Your task to perform on an android device: Set the phone to "Do not disturb". Image 0: 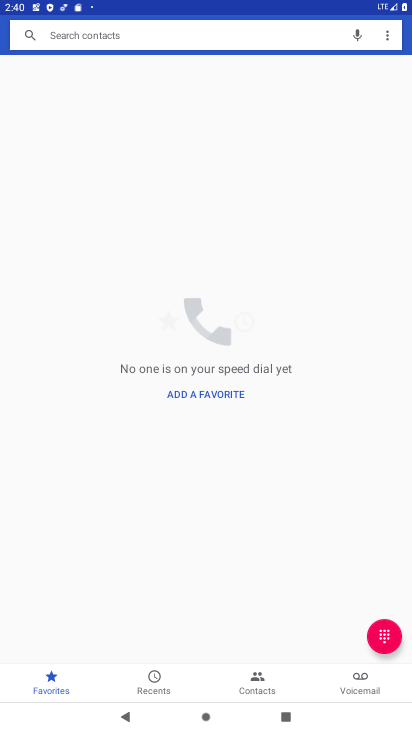
Step 0: press home button
Your task to perform on an android device: Set the phone to "Do not disturb". Image 1: 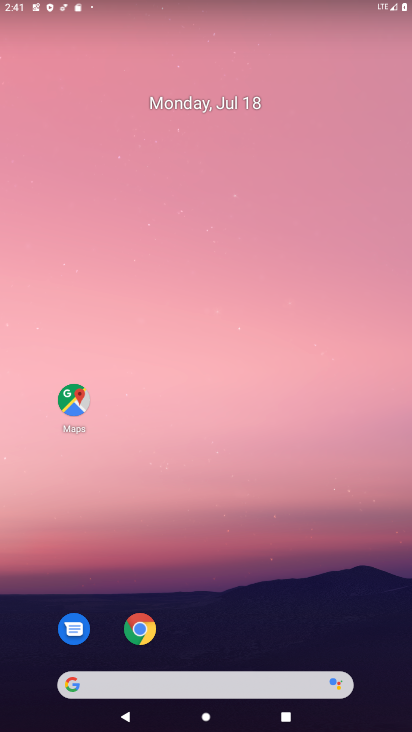
Step 1: drag from (217, 645) to (160, 311)
Your task to perform on an android device: Set the phone to "Do not disturb". Image 2: 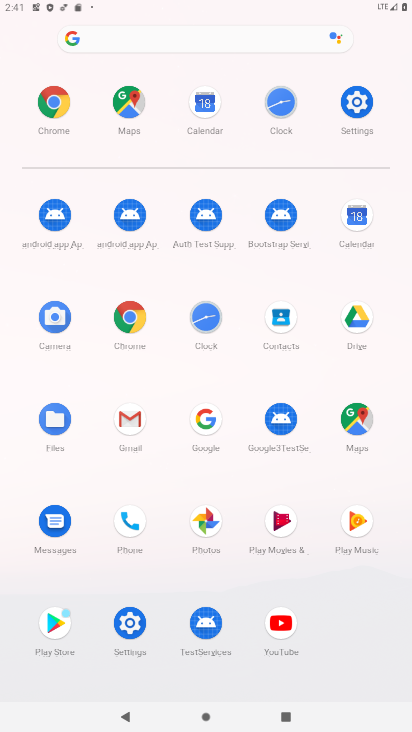
Step 2: click (348, 106)
Your task to perform on an android device: Set the phone to "Do not disturb". Image 3: 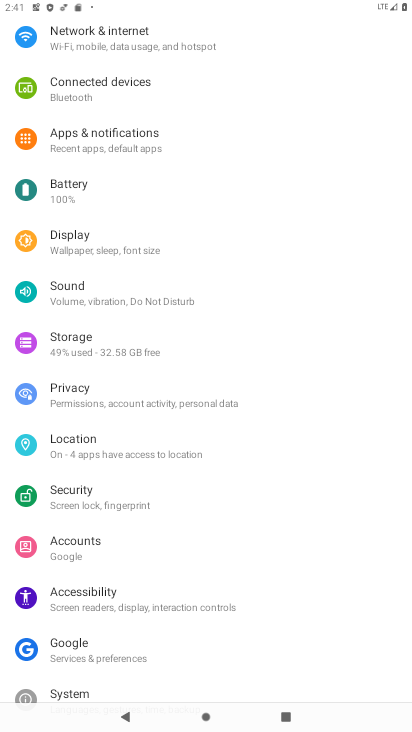
Step 3: click (107, 298)
Your task to perform on an android device: Set the phone to "Do not disturb". Image 4: 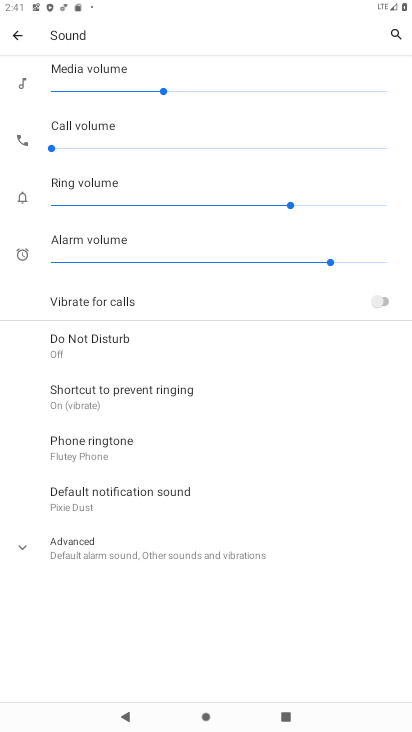
Step 4: click (72, 340)
Your task to perform on an android device: Set the phone to "Do not disturb". Image 5: 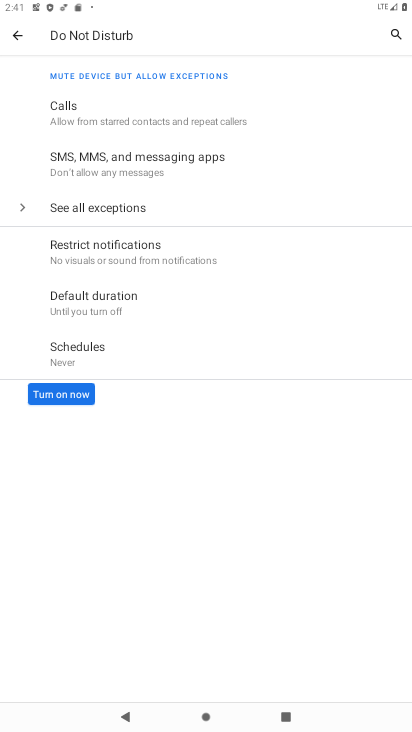
Step 5: click (66, 393)
Your task to perform on an android device: Set the phone to "Do not disturb". Image 6: 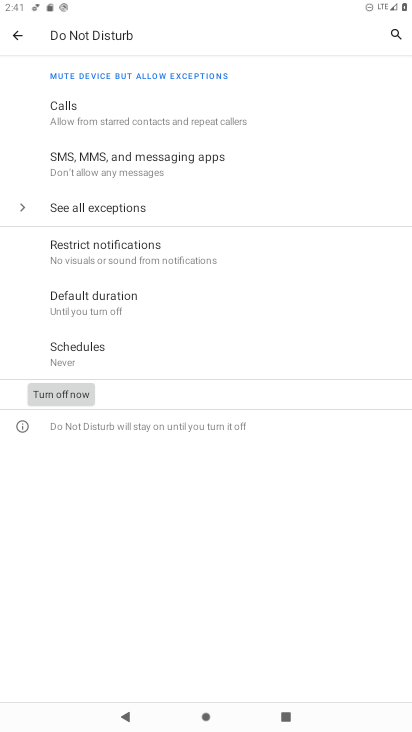
Step 6: task complete